Your task to perform on an android device: Open privacy settings Image 0: 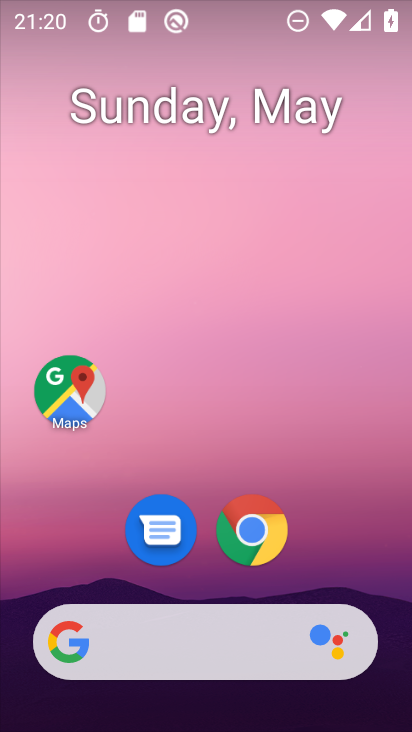
Step 0: drag from (281, 675) to (285, 68)
Your task to perform on an android device: Open privacy settings Image 1: 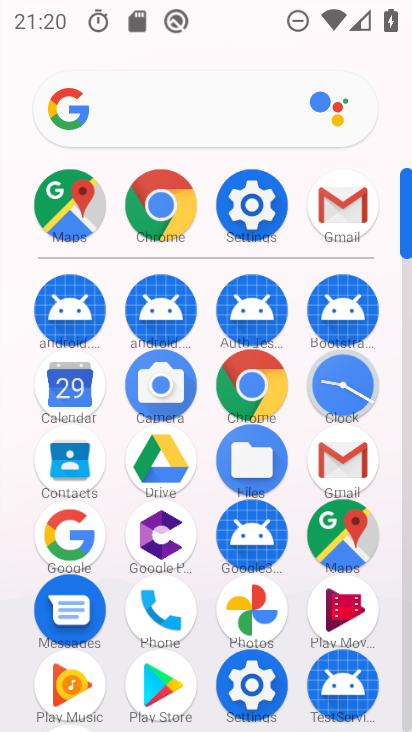
Step 1: click (252, 208)
Your task to perform on an android device: Open privacy settings Image 2: 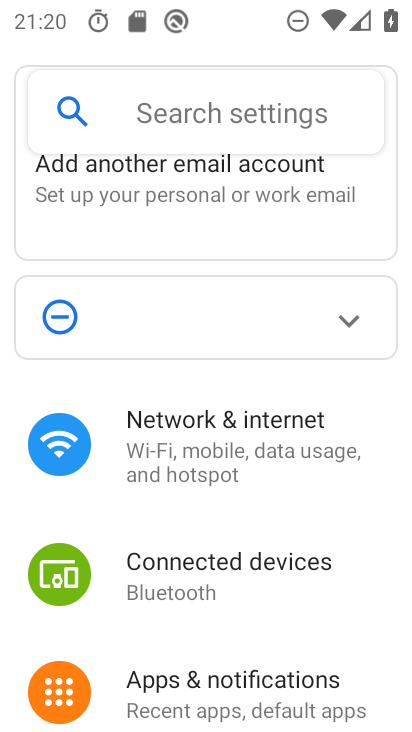
Step 2: click (233, 108)
Your task to perform on an android device: Open privacy settings Image 3: 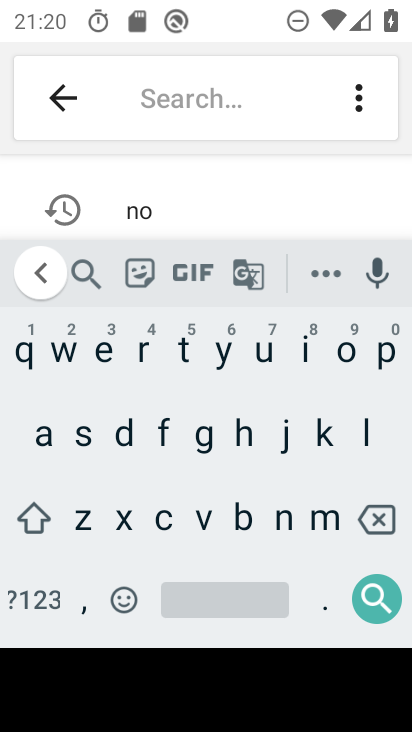
Step 3: click (384, 362)
Your task to perform on an android device: Open privacy settings Image 4: 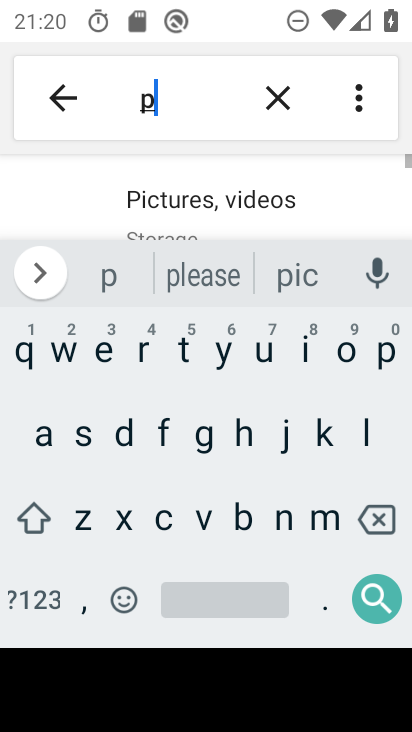
Step 4: click (147, 350)
Your task to perform on an android device: Open privacy settings Image 5: 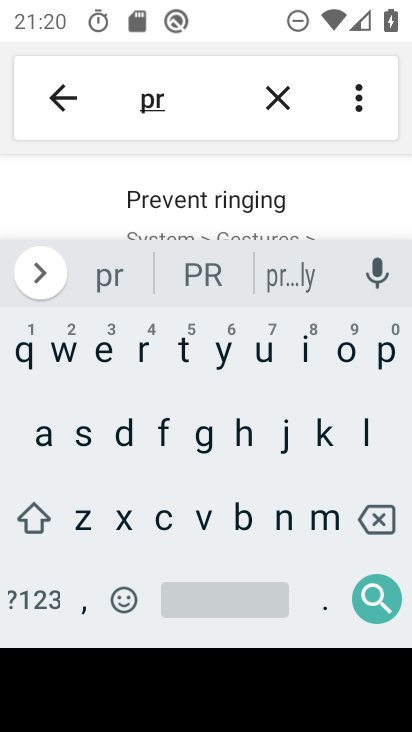
Step 5: click (300, 350)
Your task to perform on an android device: Open privacy settings Image 6: 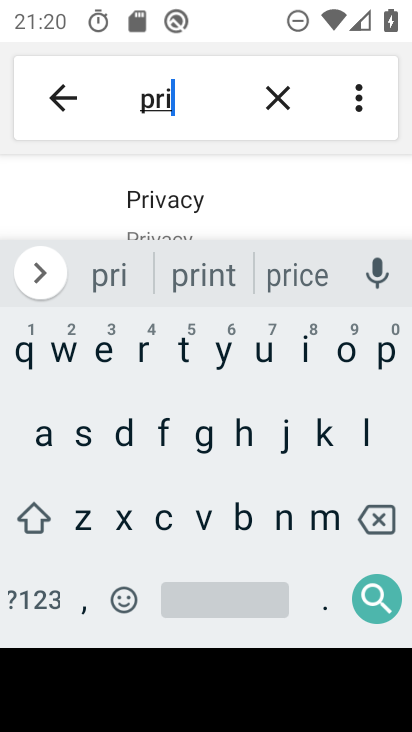
Step 6: click (190, 210)
Your task to perform on an android device: Open privacy settings Image 7: 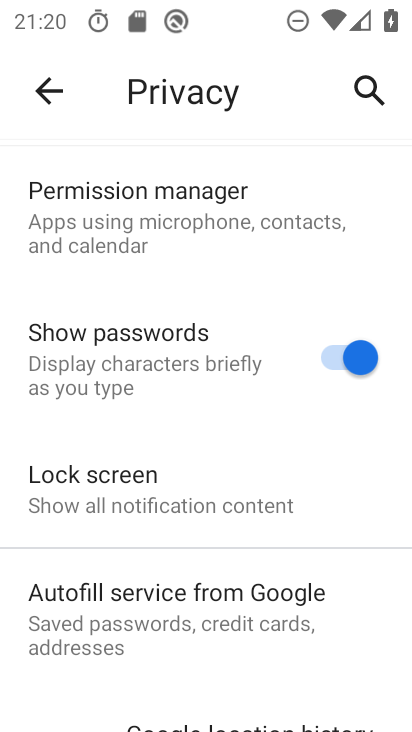
Step 7: task complete